Your task to perform on an android device: change the clock display to analog Image 0: 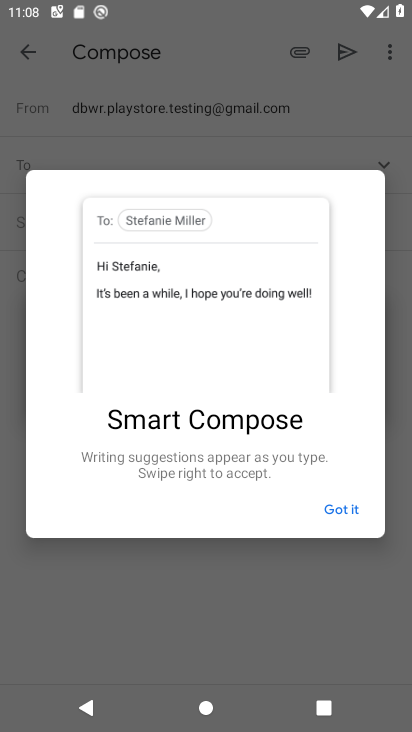
Step 0: press home button
Your task to perform on an android device: change the clock display to analog Image 1: 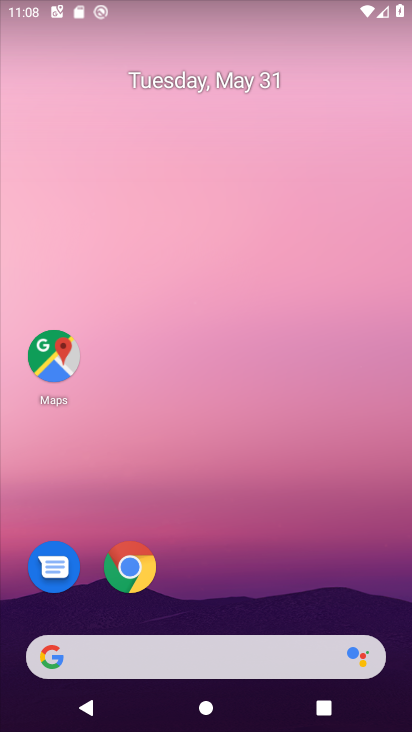
Step 1: drag from (170, 589) to (175, 22)
Your task to perform on an android device: change the clock display to analog Image 2: 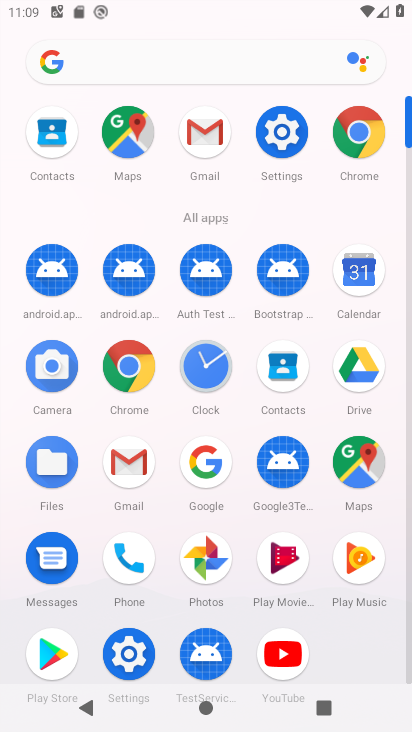
Step 2: click (218, 355)
Your task to perform on an android device: change the clock display to analog Image 3: 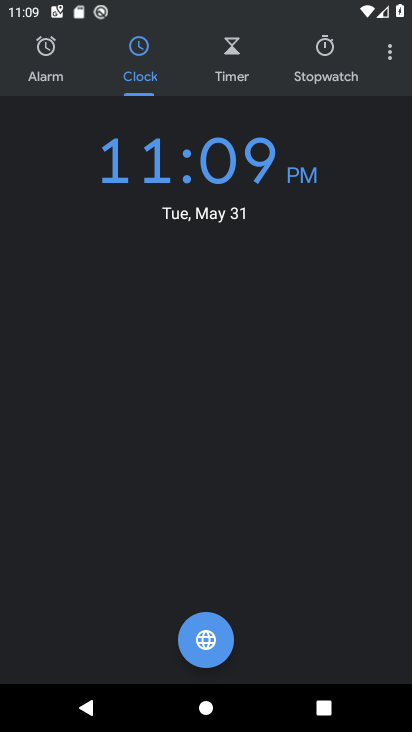
Step 3: click (202, 364)
Your task to perform on an android device: change the clock display to analog Image 4: 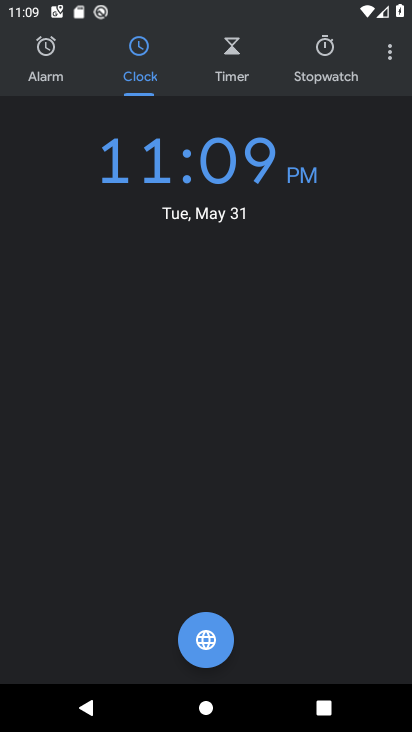
Step 4: click (399, 56)
Your task to perform on an android device: change the clock display to analog Image 5: 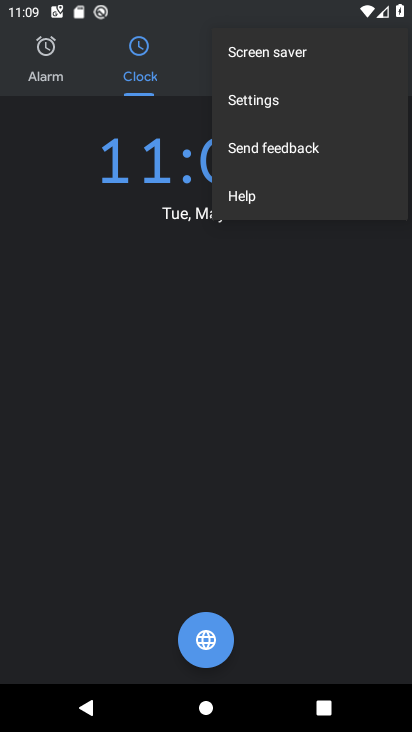
Step 5: click (316, 93)
Your task to perform on an android device: change the clock display to analog Image 6: 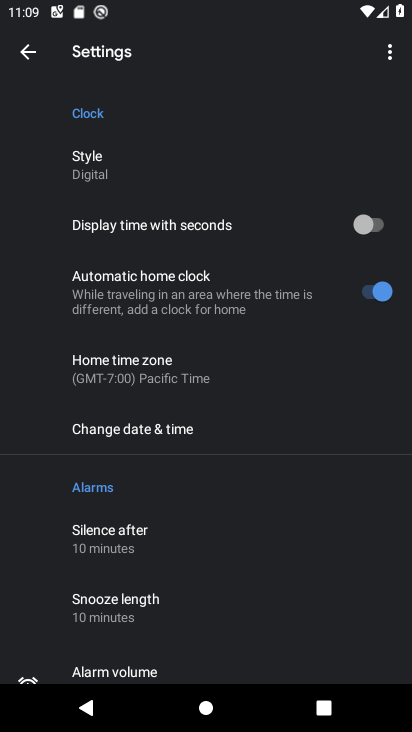
Step 6: click (108, 157)
Your task to perform on an android device: change the clock display to analog Image 7: 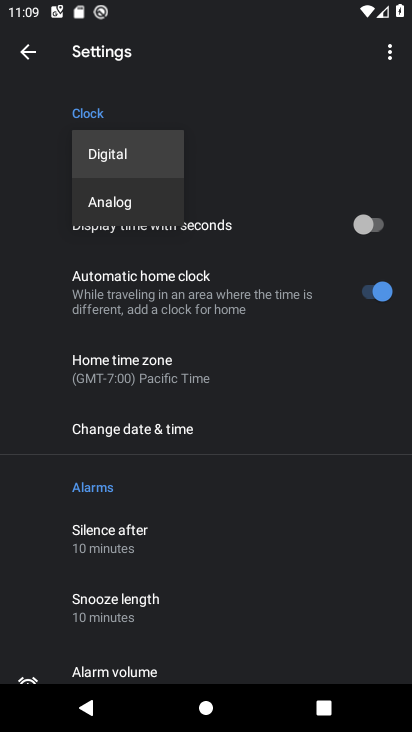
Step 7: click (119, 163)
Your task to perform on an android device: change the clock display to analog Image 8: 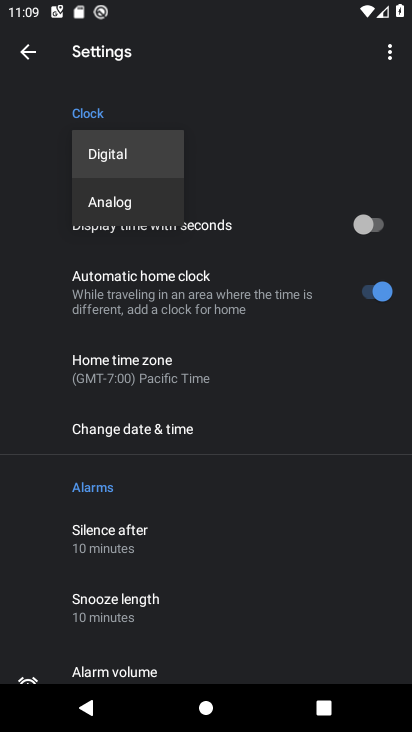
Step 8: click (119, 163)
Your task to perform on an android device: change the clock display to analog Image 9: 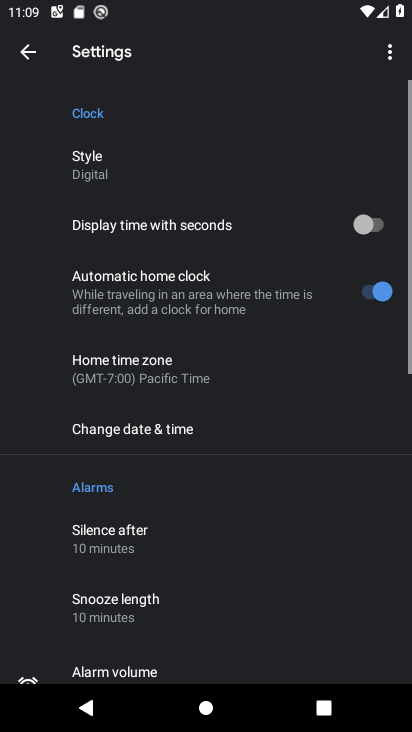
Step 9: click (132, 198)
Your task to perform on an android device: change the clock display to analog Image 10: 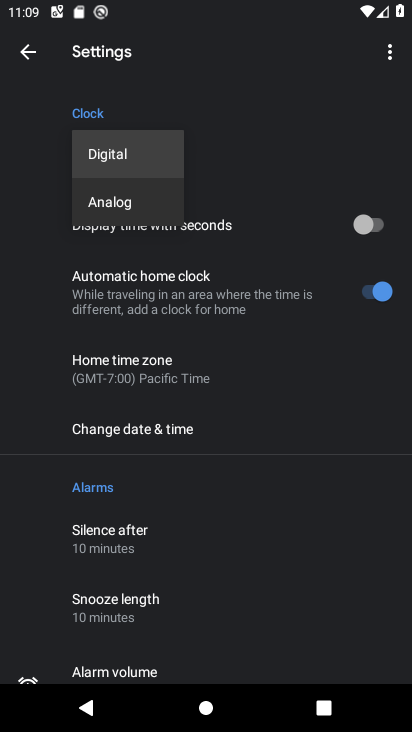
Step 10: click (132, 198)
Your task to perform on an android device: change the clock display to analog Image 11: 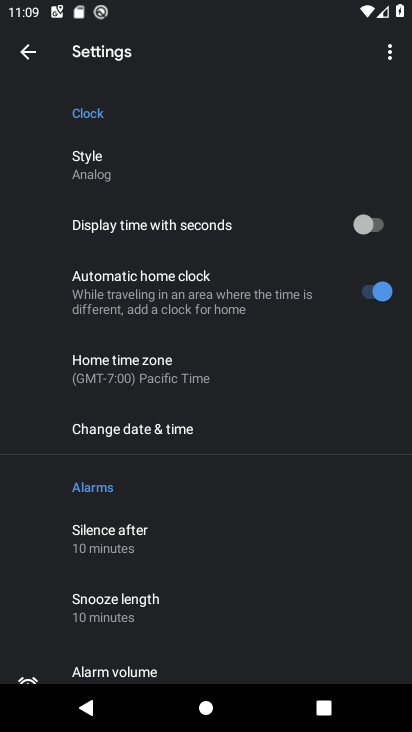
Step 11: task complete